Your task to perform on an android device: toggle priority inbox in the gmail app Image 0: 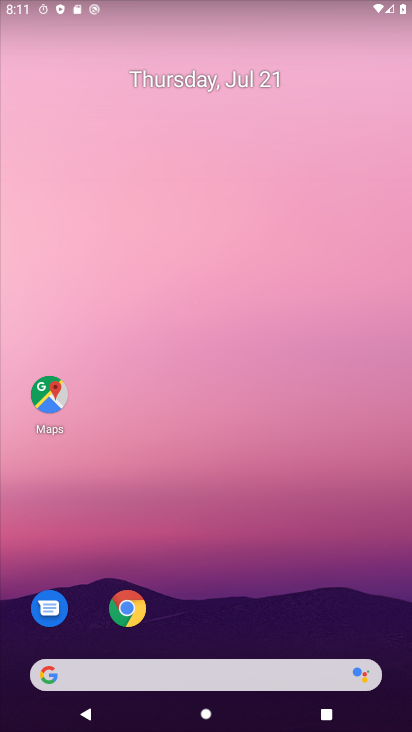
Step 0: press home button
Your task to perform on an android device: toggle priority inbox in the gmail app Image 1: 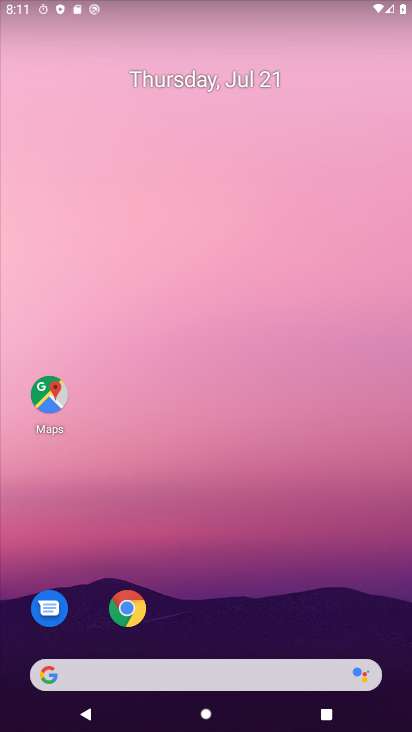
Step 1: drag from (296, 641) to (313, 338)
Your task to perform on an android device: toggle priority inbox in the gmail app Image 2: 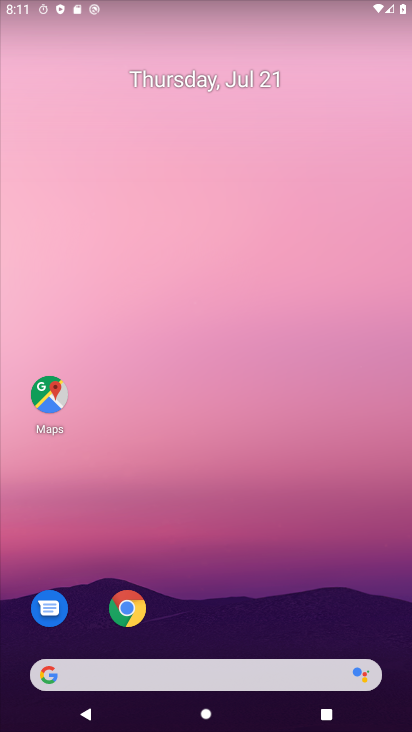
Step 2: drag from (304, 111) to (311, 74)
Your task to perform on an android device: toggle priority inbox in the gmail app Image 3: 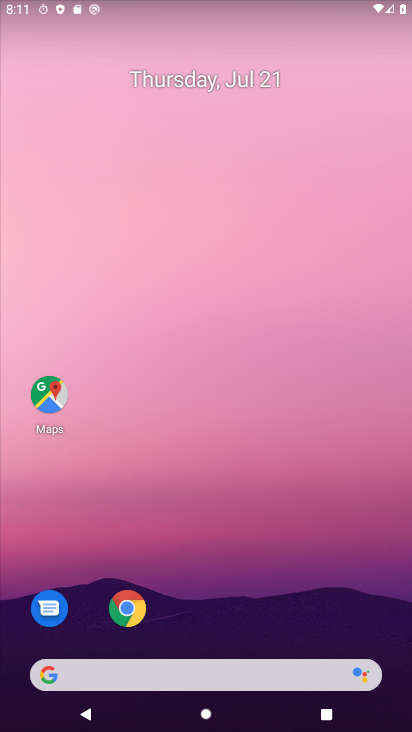
Step 3: drag from (406, 709) to (338, 127)
Your task to perform on an android device: toggle priority inbox in the gmail app Image 4: 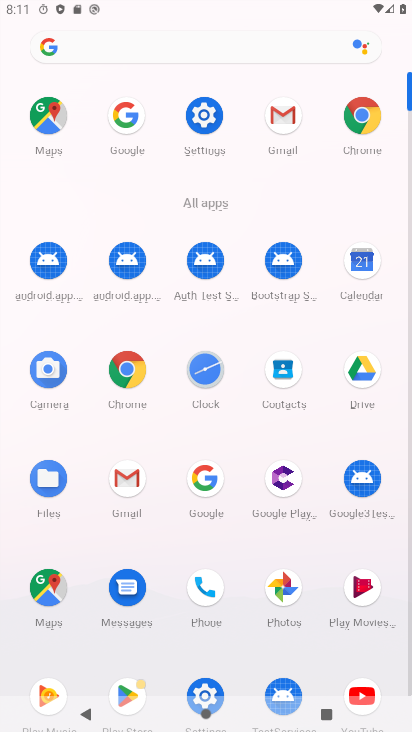
Step 4: drag from (239, 662) to (237, 396)
Your task to perform on an android device: toggle priority inbox in the gmail app Image 5: 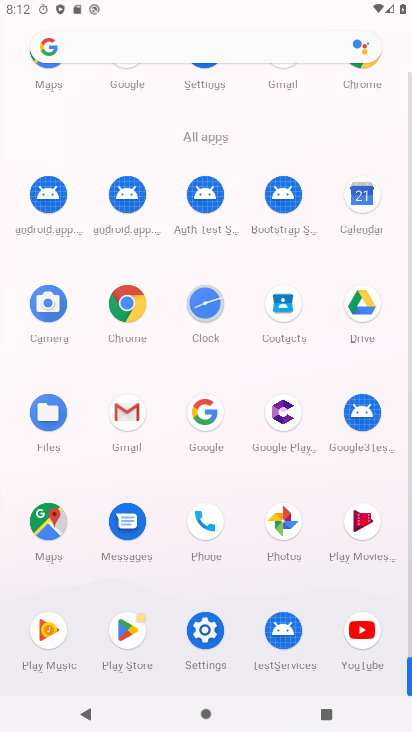
Step 5: click (141, 416)
Your task to perform on an android device: toggle priority inbox in the gmail app Image 6: 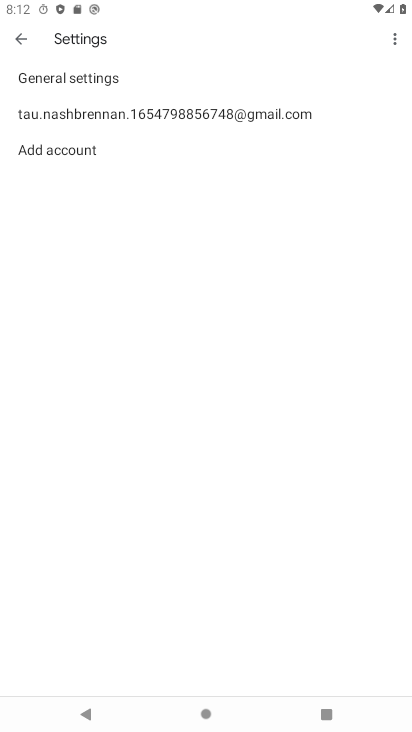
Step 6: click (158, 124)
Your task to perform on an android device: toggle priority inbox in the gmail app Image 7: 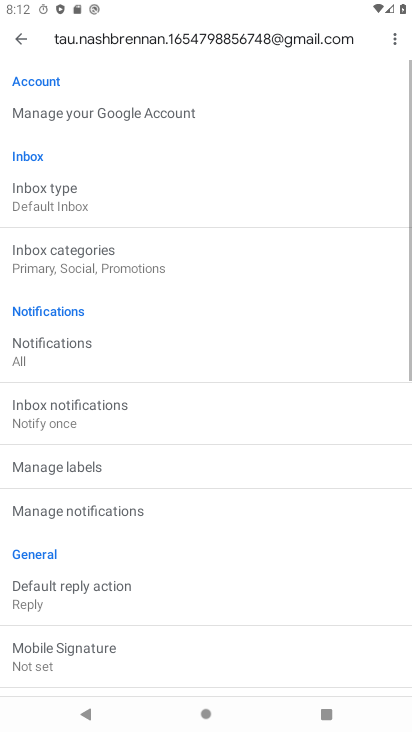
Step 7: click (29, 200)
Your task to perform on an android device: toggle priority inbox in the gmail app Image 8: 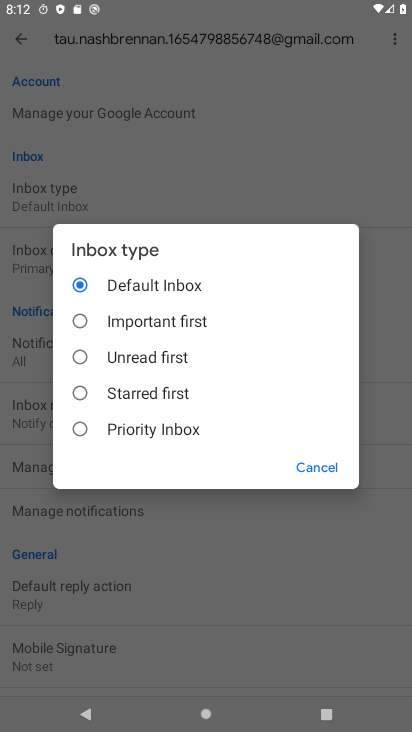
Step 8: click (129, 426)
Your task to perform on an android device: toggle priority inbox in the gmail app Image 9: 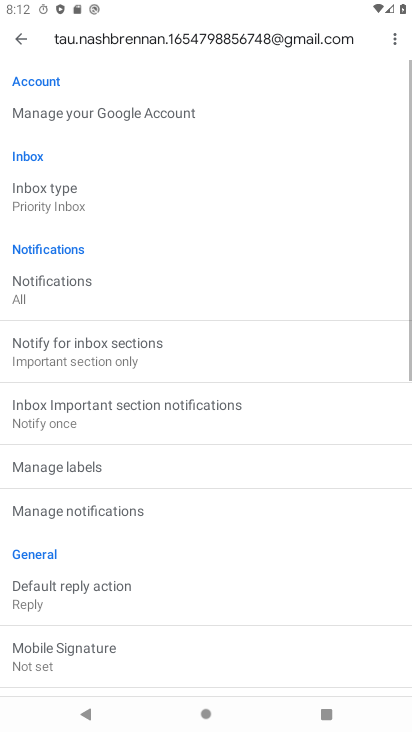
Step 9: task complete